Your task to perform on an android device: check storage Image 0: 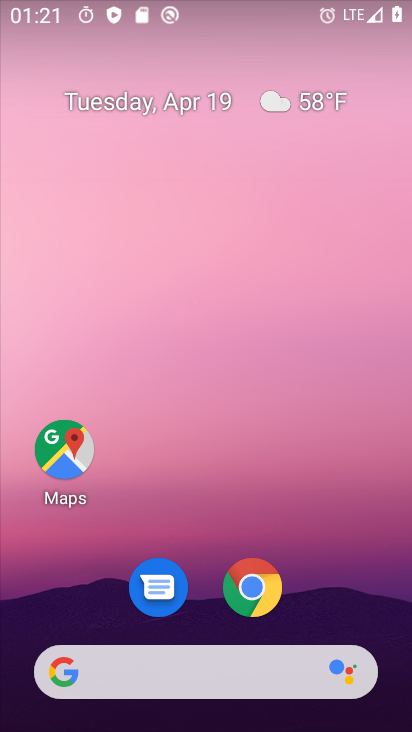
Step 0: click (327, 82)
Your task to perform on an android device: check storage Image 1: 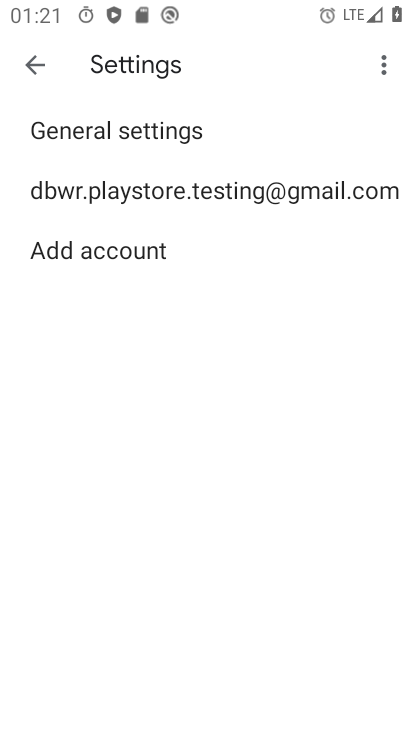
Step 1: press home button
Your task to perform on an android device: check storage Image 2: 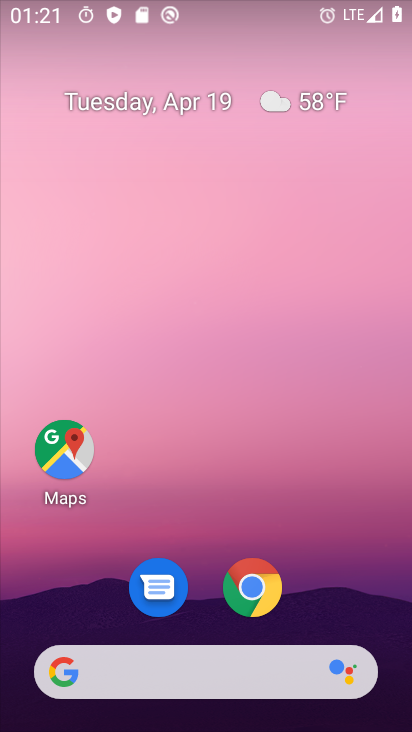
Step 2: drag from (356, 477) to (363, 217)
Your task to perform on an android device: check storage Image 3: 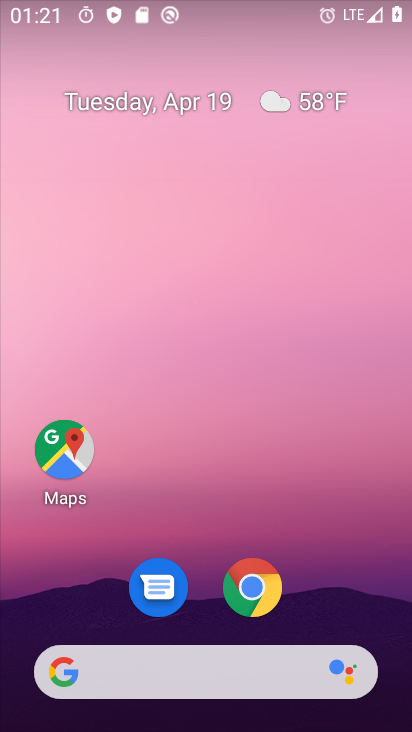
Step 3: drag from (360, 483) to (366, 5)
Your task to perform on an android device: check storage Image 4: 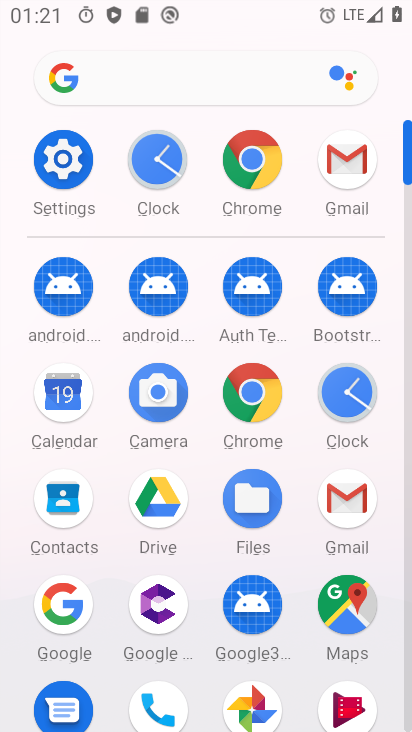
Step 4: click (62, 173)
Your task to perform on an android device: check storage Image 5: 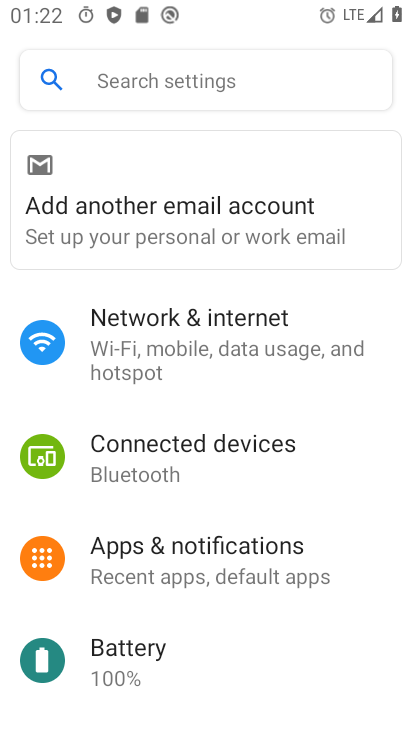
Step 5: drag from (231, 608) to (269, 362)
Your task to perform on an android device: check storage Image 6: 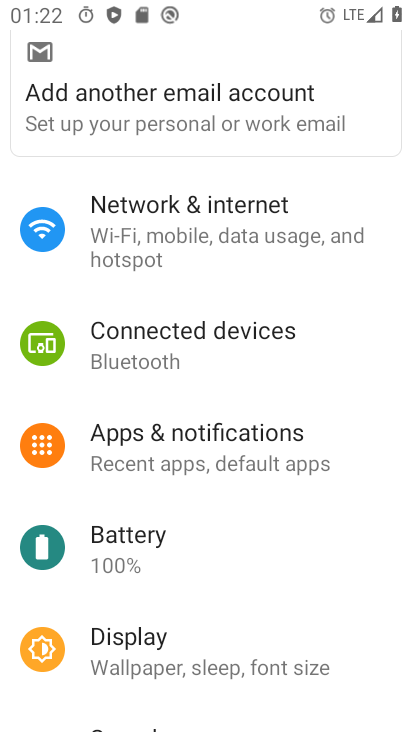
Step 6: drag from (259, 566) to (303, 264)
Your task to perform on an android device: check storage Image 7: 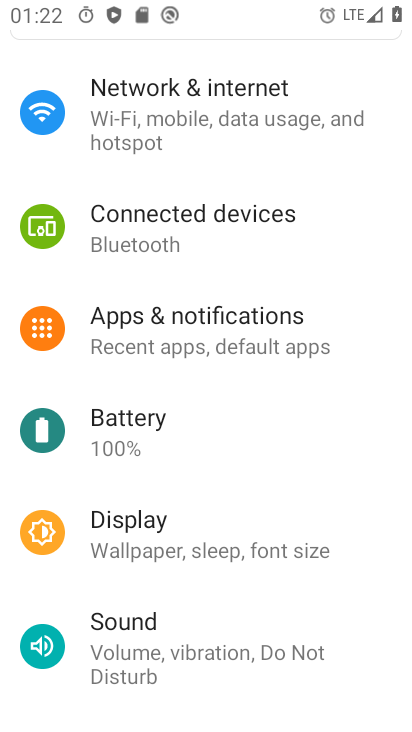
Step 7: drag from (253, 587) to (330, 241)
Your task to perform on an android device: check storage Image 8: 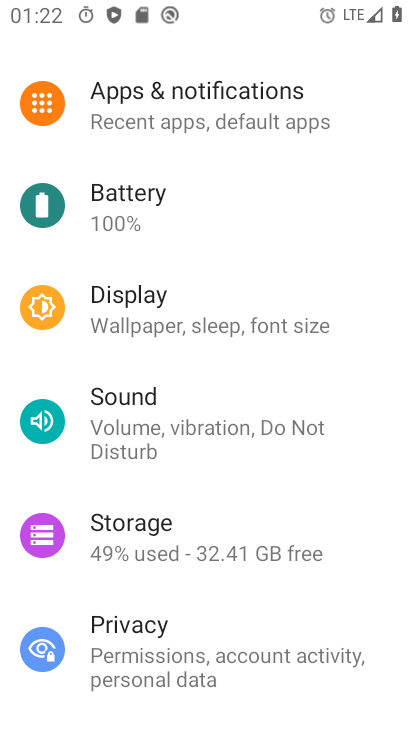
Step 8: drag from (271, 597) to (319, 361)
Your task to perform on an android device: check storage Image 9: 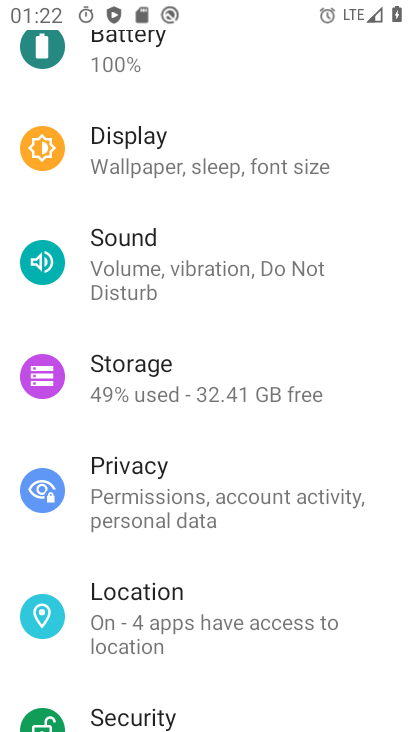
Step 9: click (236, 371)
Your task to perform on an android device: check storage Image 10: 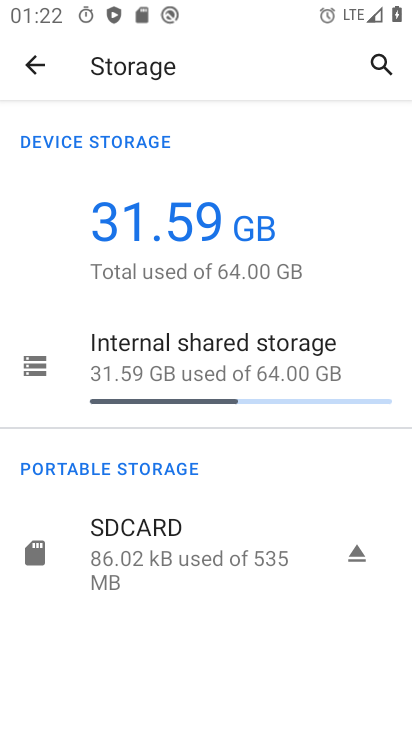
Step 10: click (25, 355)
Your task to perform on an android device: check storage Image 11: 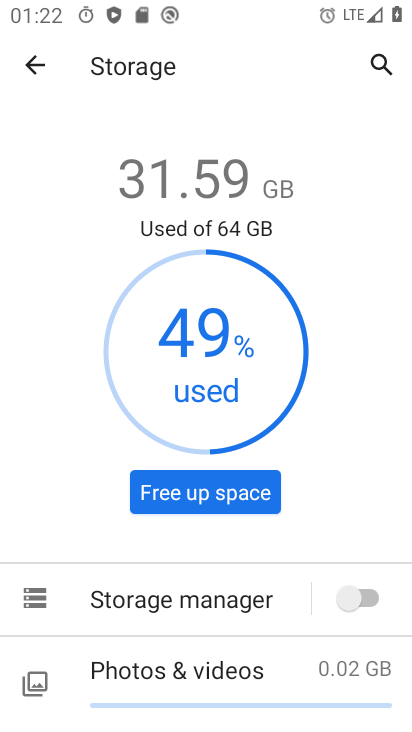
Step 11: click (30, 589)
Your task to perform on an android device: check storage Image 12: 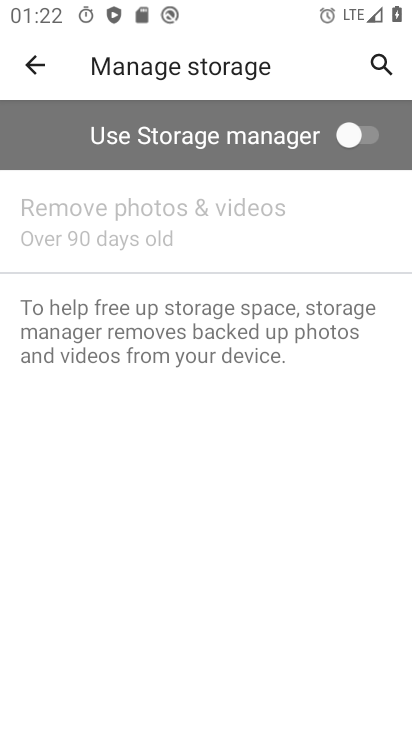
Step 12: task complete